Your task to perform on an android device: add a contact Image 0: 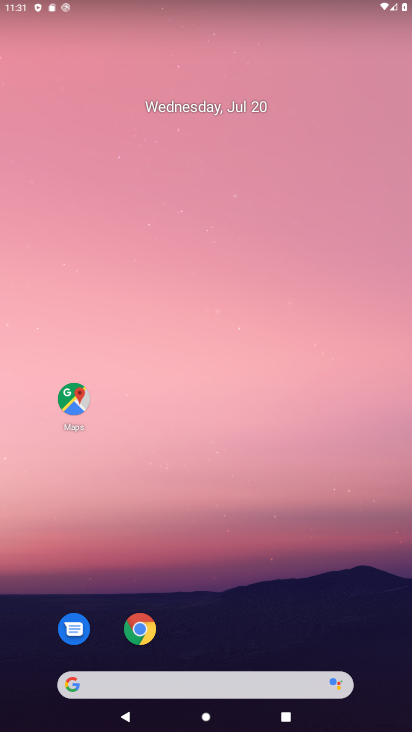
Step 0: drag from (210, 629) to (223, 125)
Your task to perform on an android device: add a contact Image 1: 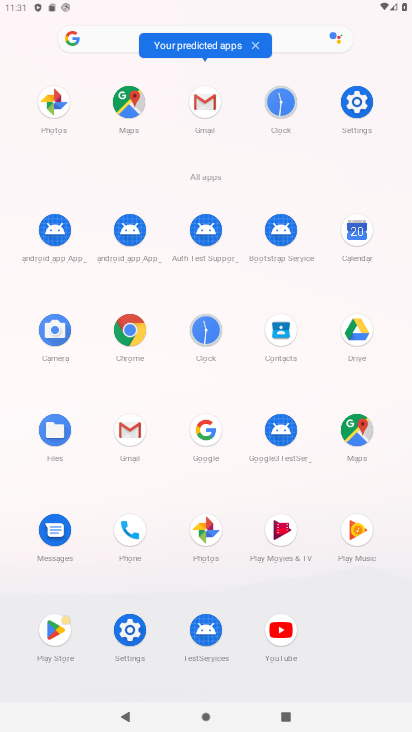
Step 1: click (132, 531)
Your task to perform on an android device: add a contact Image 2: 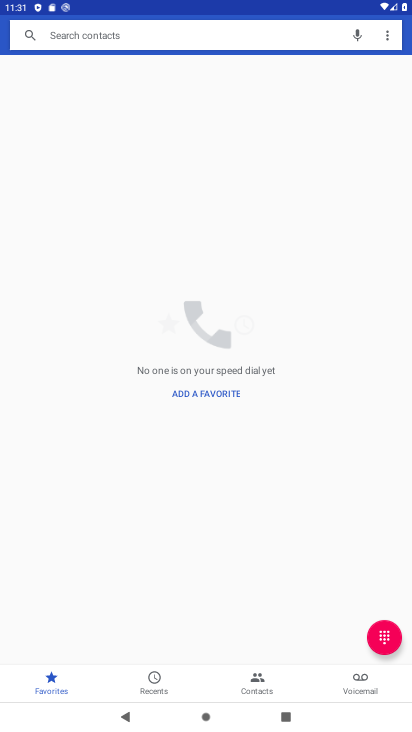
Step 2: click (186, 390)
Your task to perform on an android device: add a contact Image 3: 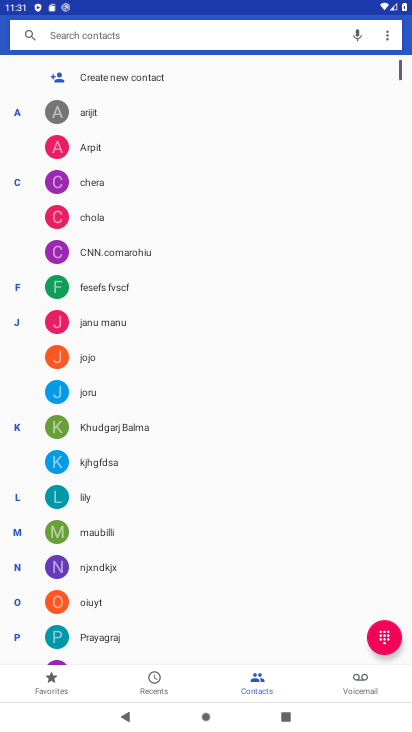
Step 3: click (84, 69)
Your task to perform on an android device: add a contact Image 4: 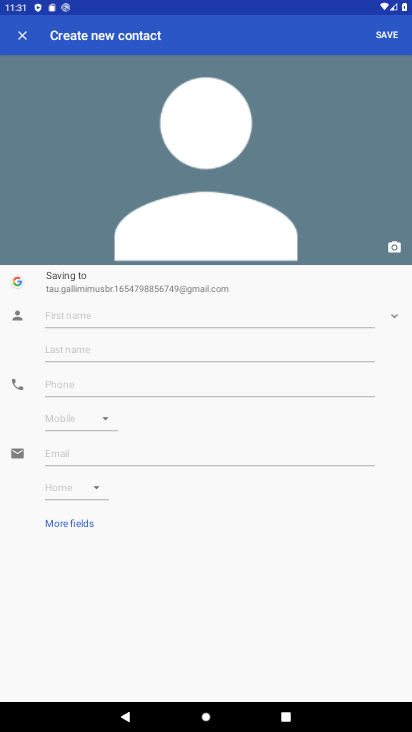
Step 4: click (162, 311)
Your task to perform on an android device: add a contact Image 5: 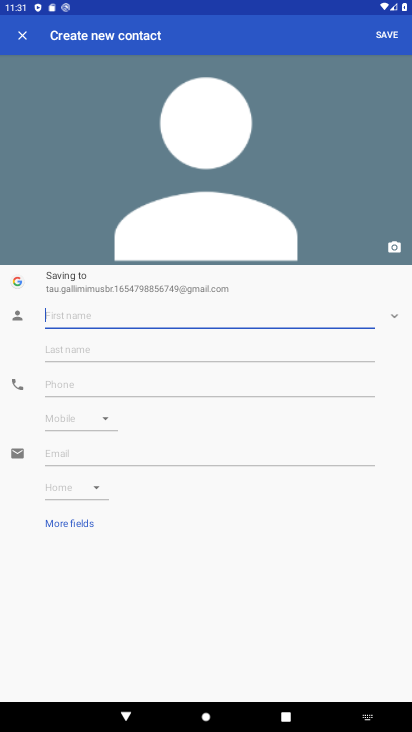
Step 5: type "plants "
Your task to perform on an android device: add a contact Image 6: 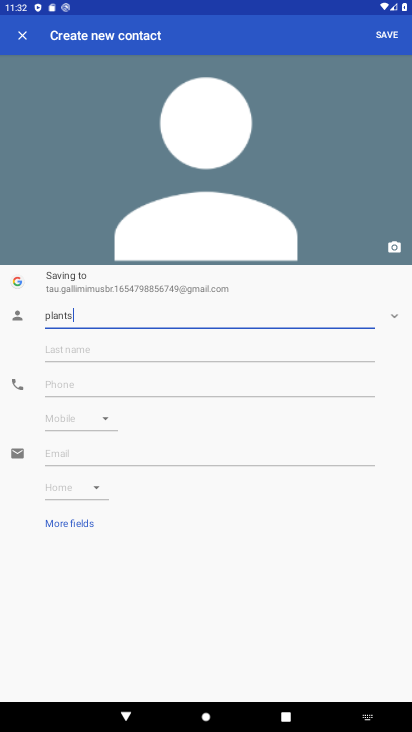
Step 6: click (114, 383)
Your task to perform on an android device: add a contact Image 7: 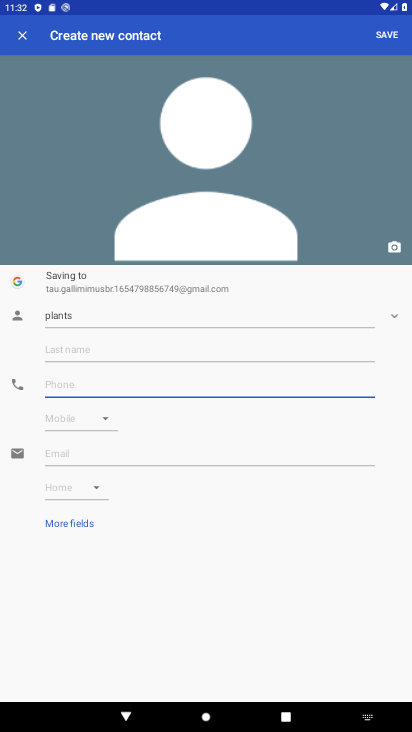
Step 7: type "44568798766546534 "
Your task to perform on an android device: add a contact Image 8: 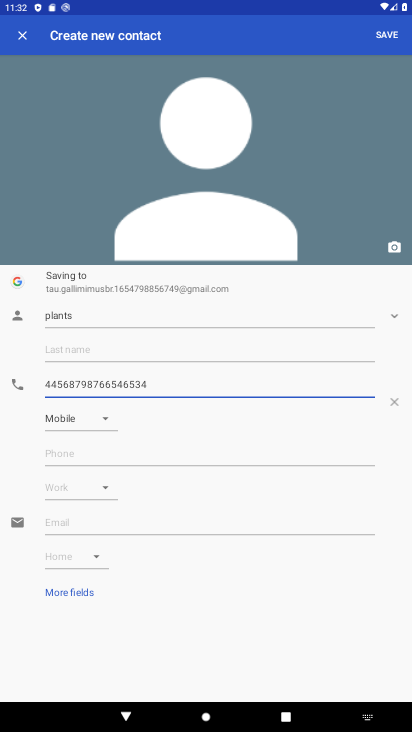
Step 8: click (398, 35)
Your task to perform on an android device: add a contact Image 9: 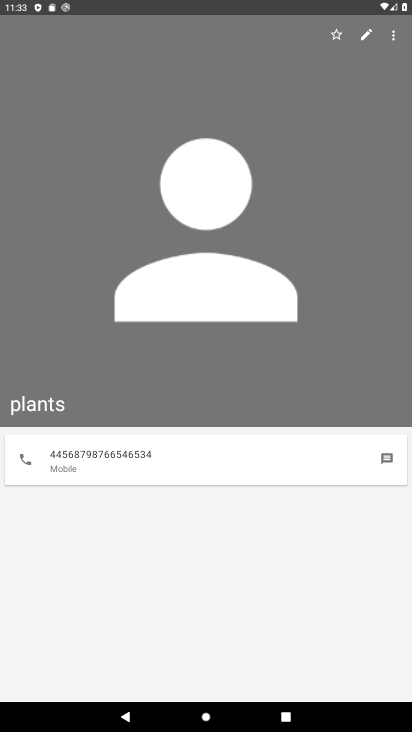
Step 9: task complete